Your task to perform on an android device: delete browsing data in the chrome app Image 0: 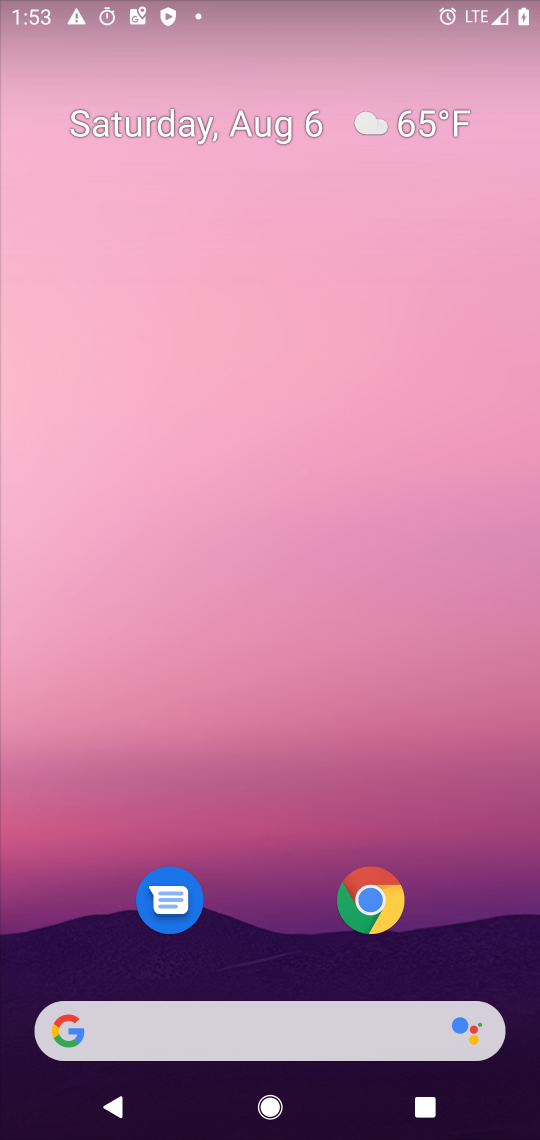
Step 0: click (376, 900)
Your task to perform on an android device: delete browsing data in the chrome app Image 1: 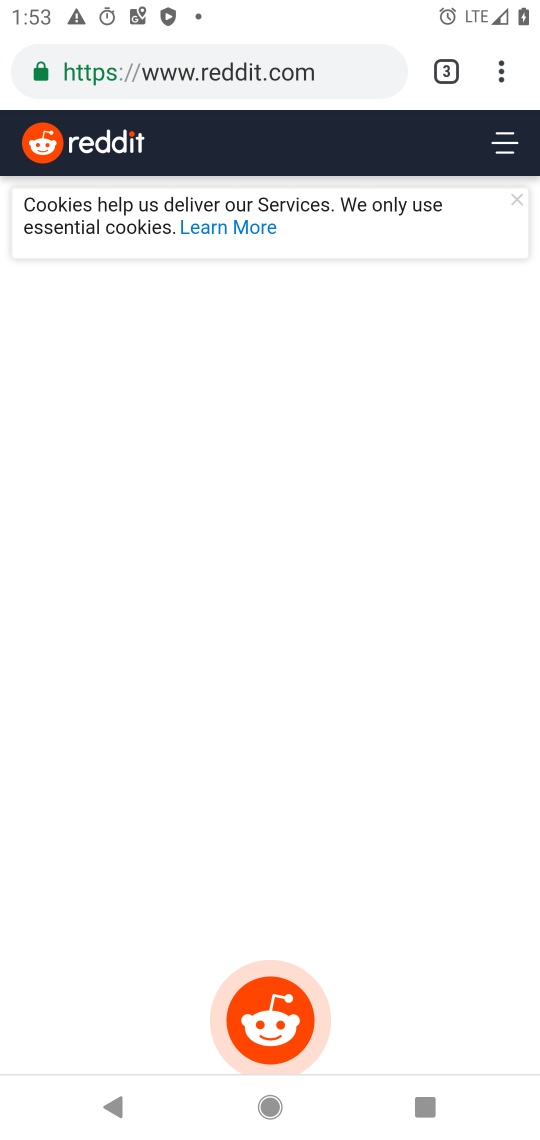
Step 1: click (502, 78)
Your task to perform on an android device: delete browsing data in the chrome app Image 2: 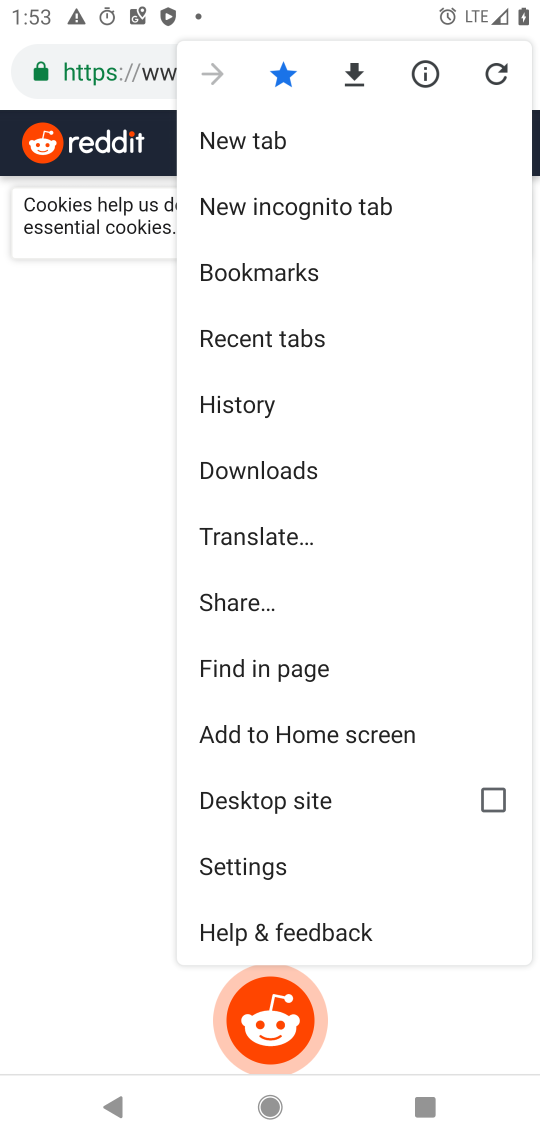
Step 2: click (229, 411)
Your task to perform on an android device: delete browsing data in the chrome app Image 3: 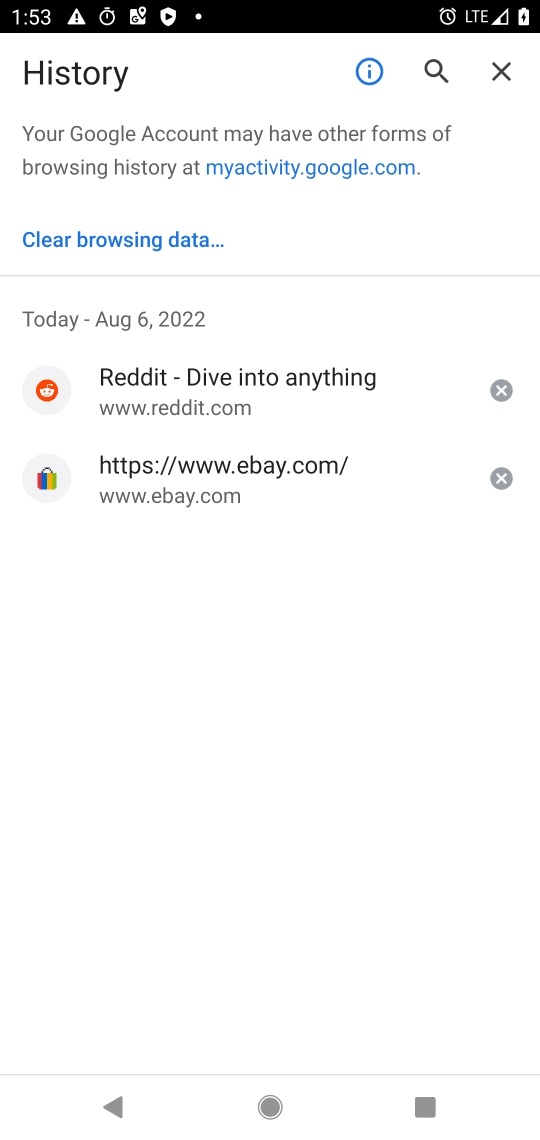
Step 3: click (138, 243)
Your task to perform on an android device: delete browsing data in the chrome app Image 4: 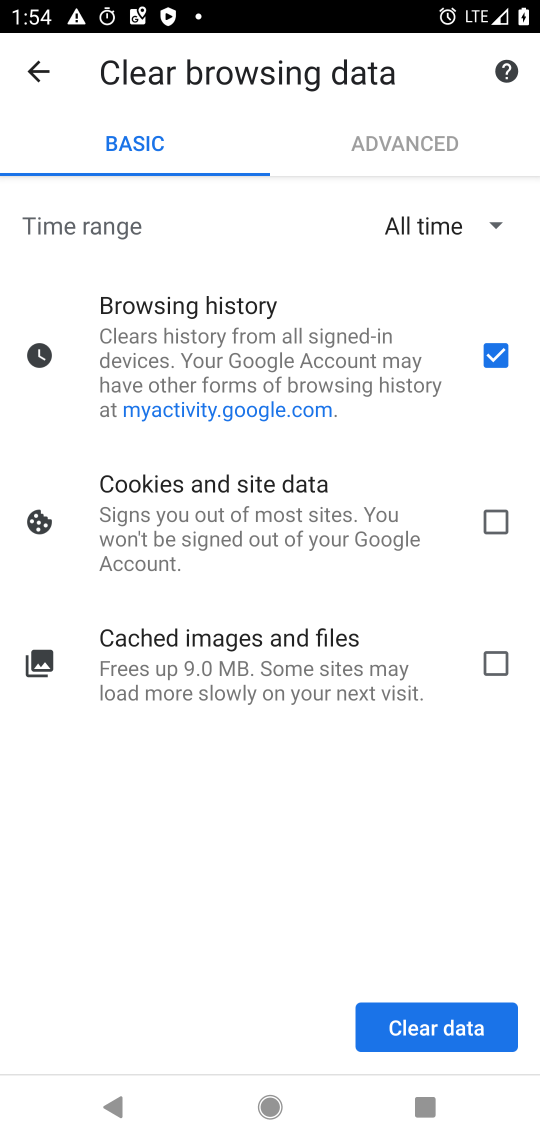
Step 4: click (449, 1036)
Your task to perform on an android device: delete browsing data in the chrome app Image 5: 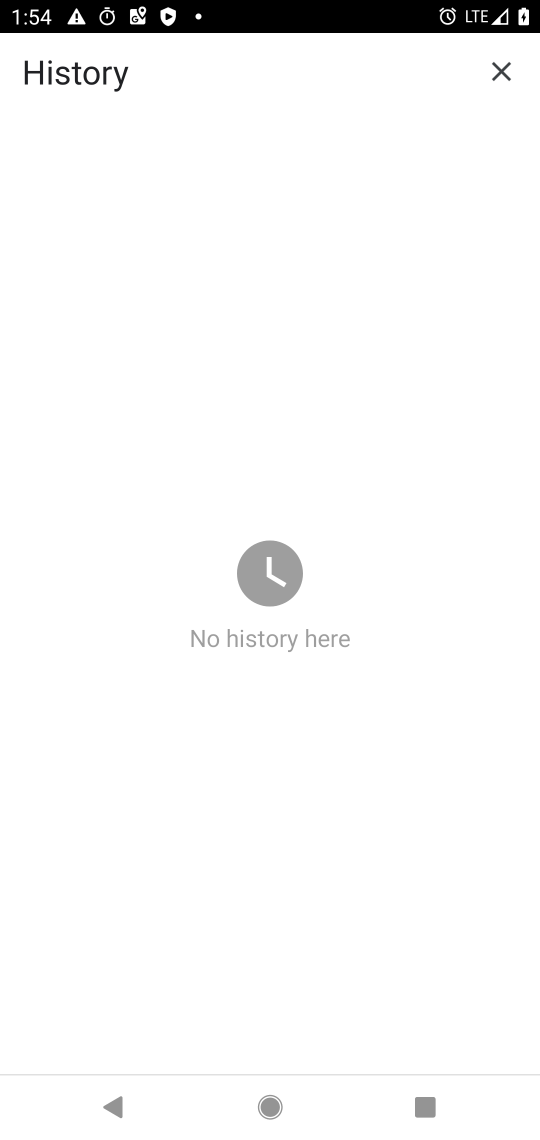
Step 5: task complete